Your task to perform on an android device: toggle improve location accuracy Image 0: 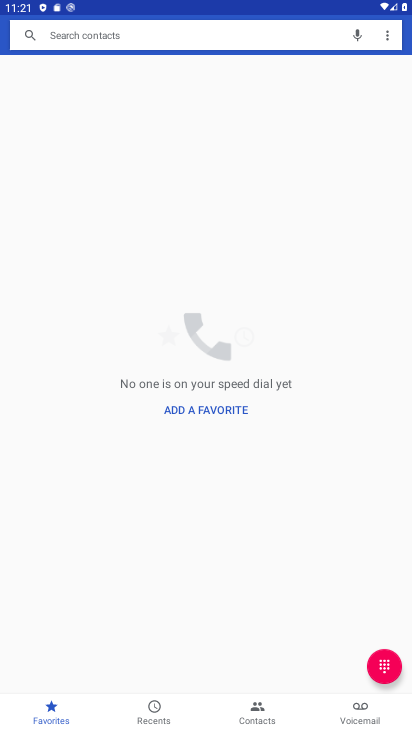
Step 0: press home button
Your task to perform on an android device: toggle improve location accuracy Image 1: 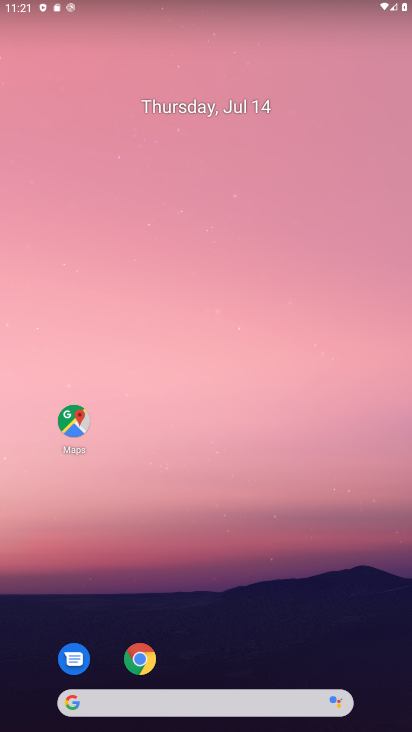
Step 1: drag from (151, 686) to (169, 336)
Your task to perform on an android device: toggle improve location accuracy Image 2: 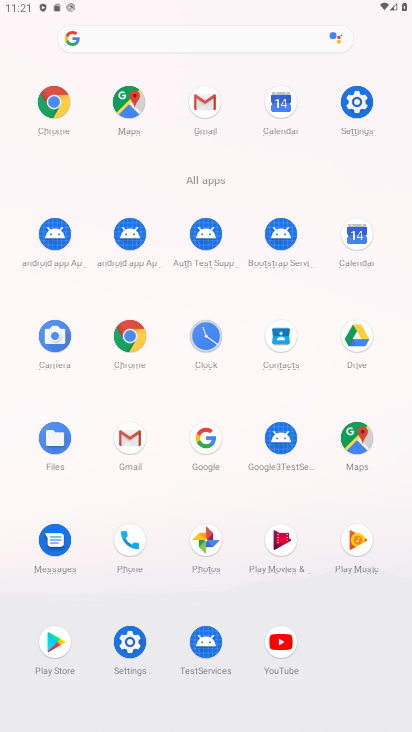
Step 2: click (367, 103)
Your task to perform on an android device: toggle improve location accuracy Image 3: 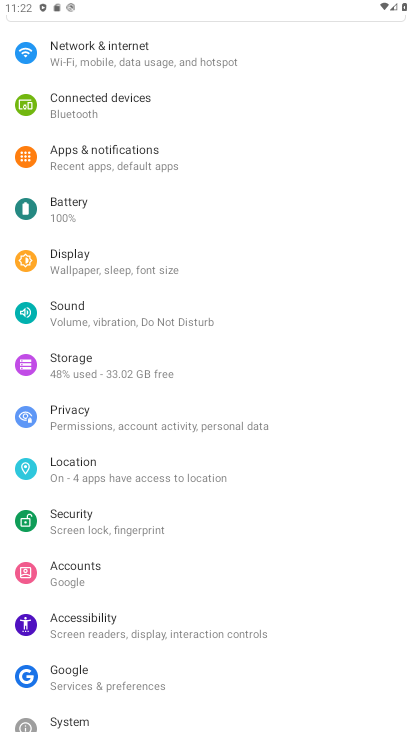
Step 3: click (136, 455)
Your task to perform on an android device: toggle improve location accuracy Image 4: 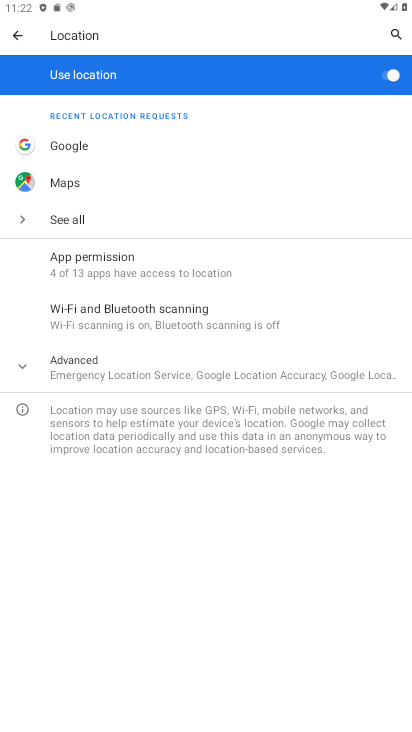
Step 4: click (145, 355)
Your task to perform on an android device: toggle improve location accuracy Image 5: 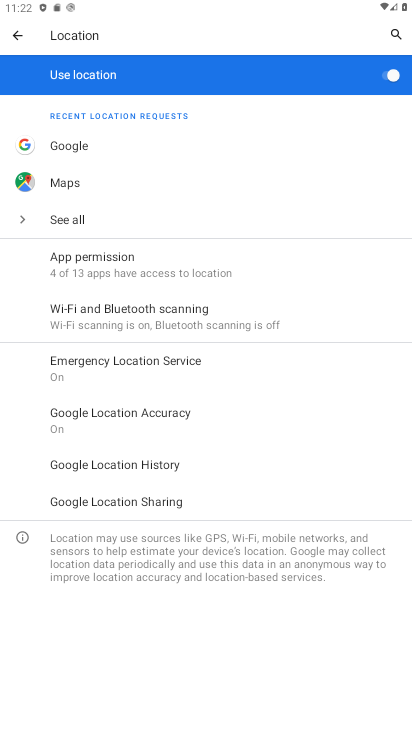
Step 5: click (130, 417)
Your task to perform on an android device: toggle improve location accuracy Image 6: 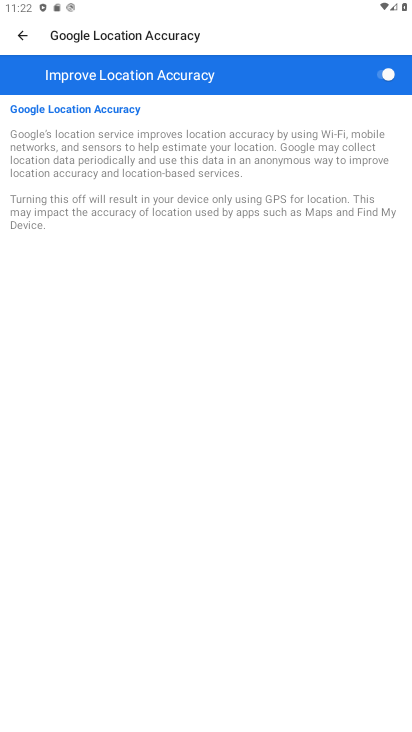
Step 6: click (386, 59)
Your task to perform on an android device: toggle improve location accuracy Image 7: 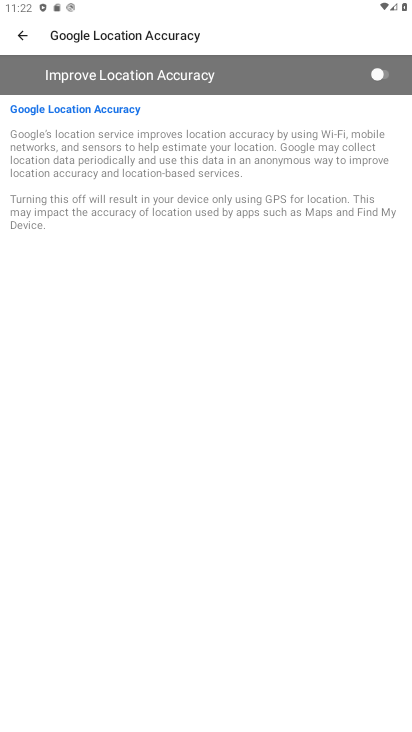
Step 7: task complete